Your task to perform on an android device: set an alarm Image 0: 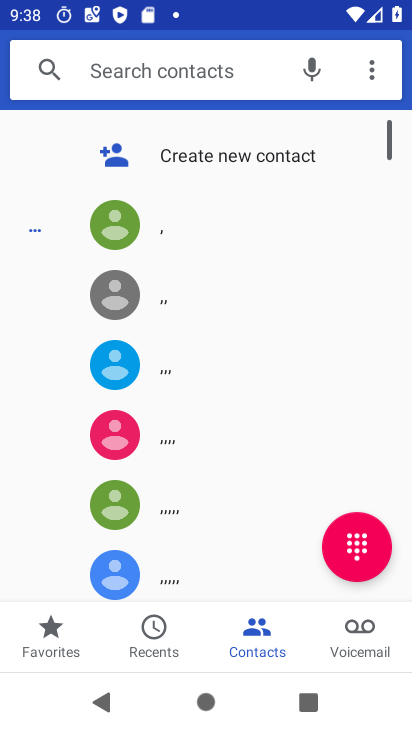
Step 0: press home button
Your task to perform on an android device: set an alarm Image 1: 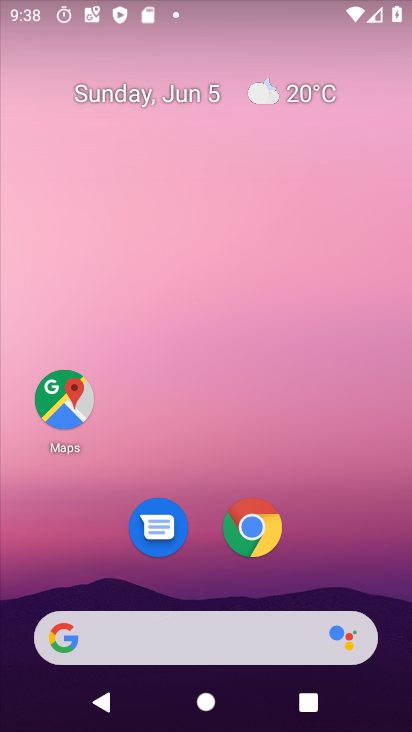
Step 1: drag from (379, 482) to (327, 1)
Your task to perform on an android device: set an alarm Image 2: 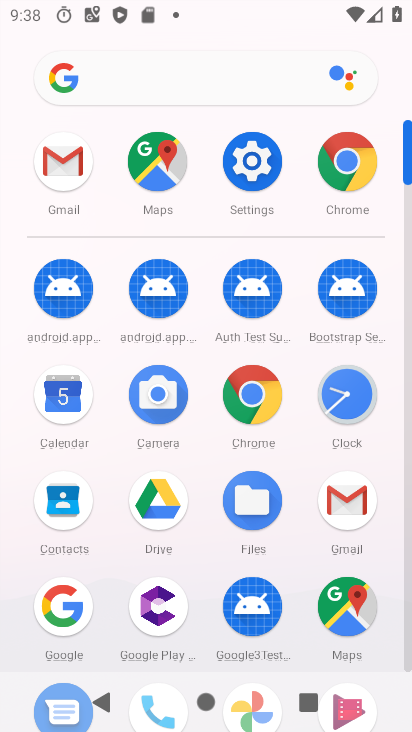
Step 2: click (354, 389)
Your task to perform on an android device: set an alarm Image 3: 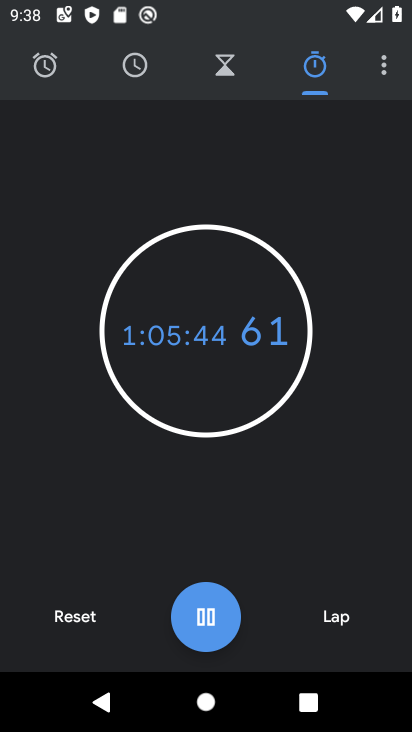
Step 3: click (55, 60)
Your task to perform on an android device: set an alarm Image 4: 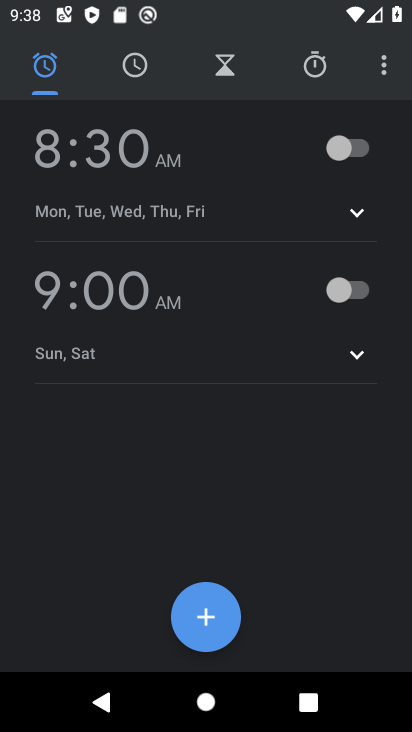
Step 4: click (340, 135)
Your task to perform on an android device: set an alarm Image 5: 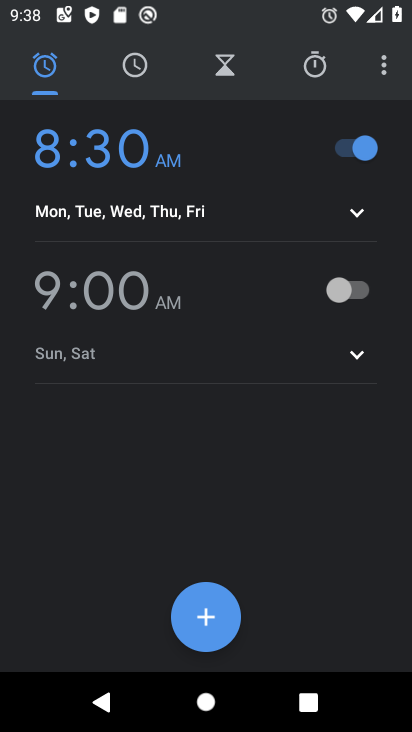
Step 5: task complete